Your task to perform on an android device: stop showing notifications on the lock screen Image 0: 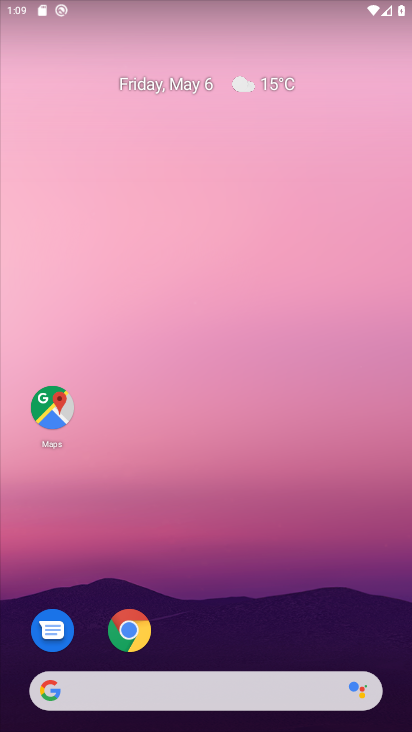
Step 0: drag from (228, 529) to (263, 107)
Your task to perform on an android device: stop showing notifications on the lock screen Image 1: 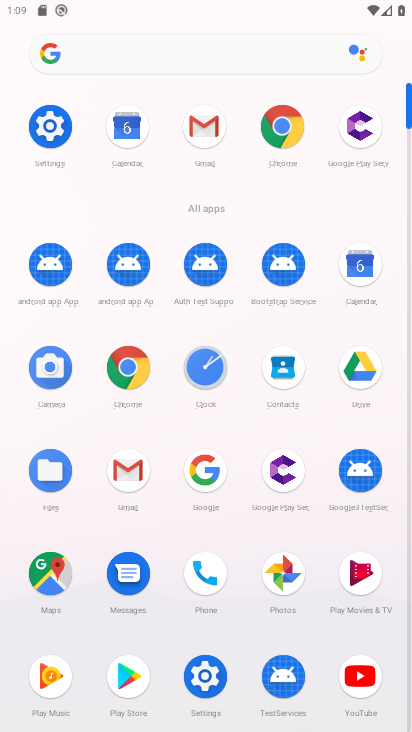
Step 1: click (208, 673)
Your task to perform on an android device: stop showing notifications on the lock screen Image 2: 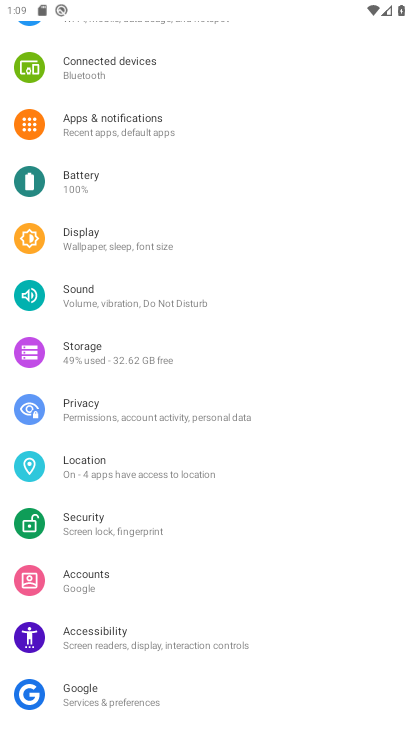
Step 2: click (198, 114)
Your task to perform on an android device: stop showing notifications on the lock screen Image 3: 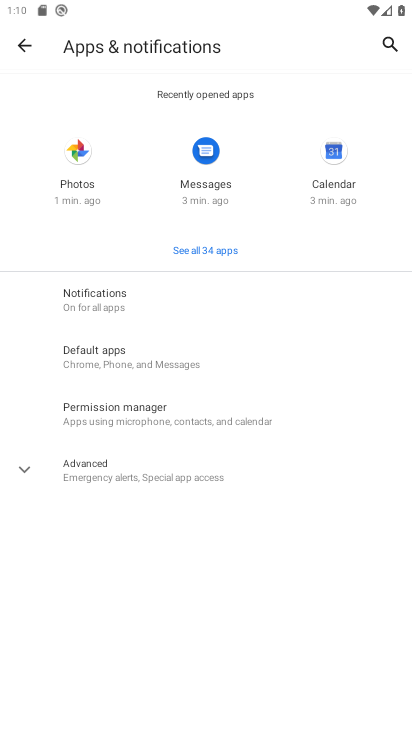
Step 3: click (153, 304)
Your task to perform on an android device: stop showing notifications on the lock screen Image 4: 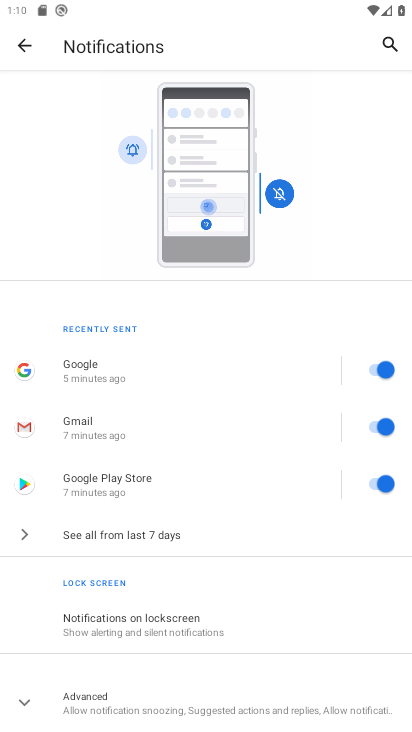
Step 4: click (134, 627)
Your task to perform on an android device: stop showing notifications on the lock screen Image 5: 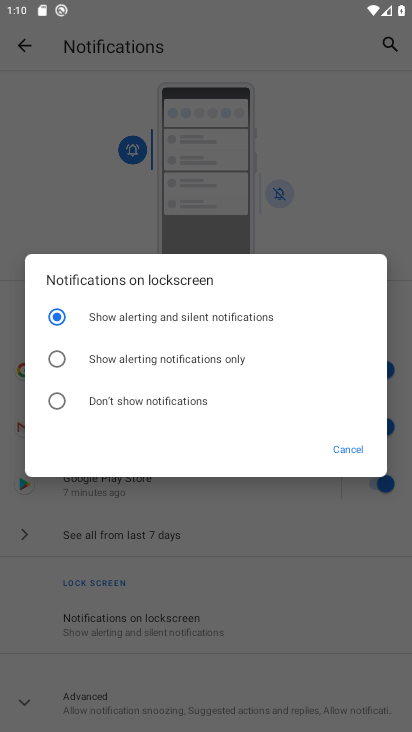
Step 5: click (116, 400)
Your task to perform on an android device: stop showing notifications on the lock screen Image 6: 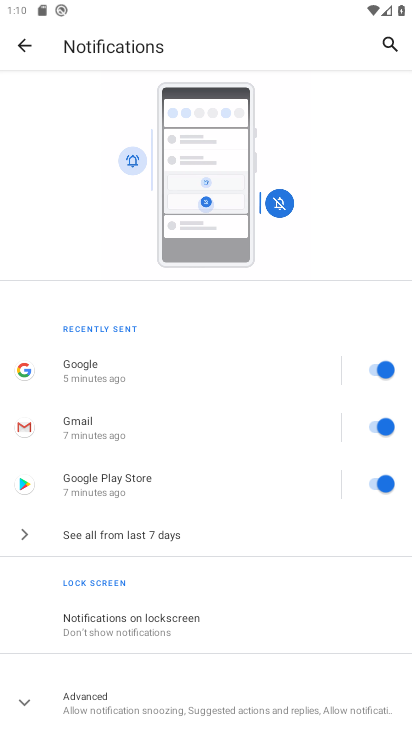
Step 6: task complete